Your task to perform on an android device: star an email in the gmail app Image 0: 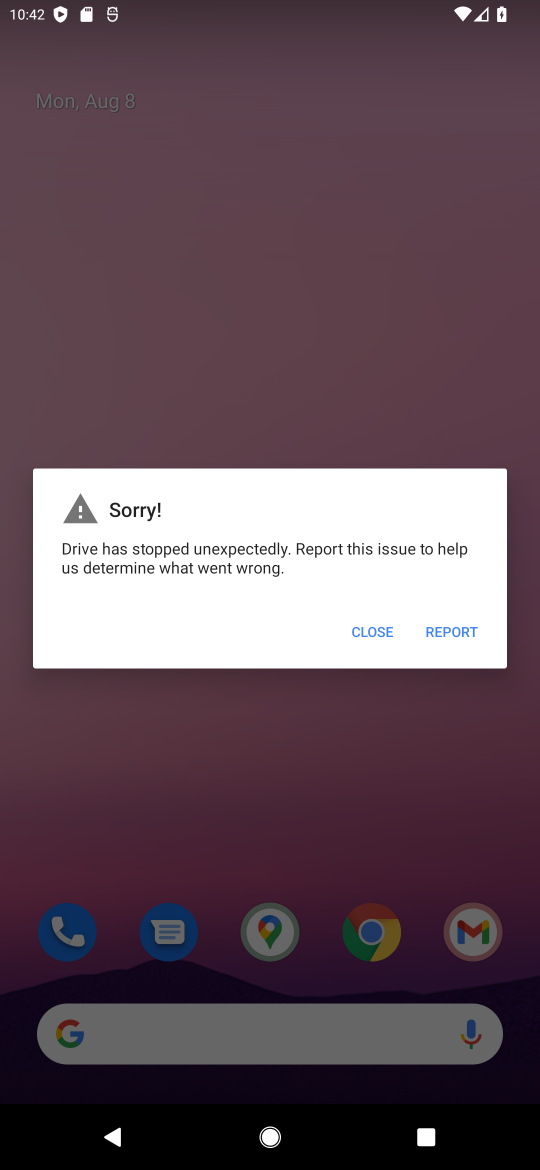
Step 0: click (379, 632)
Your task to perform on an android device: star an email in the gmail app Image 1: 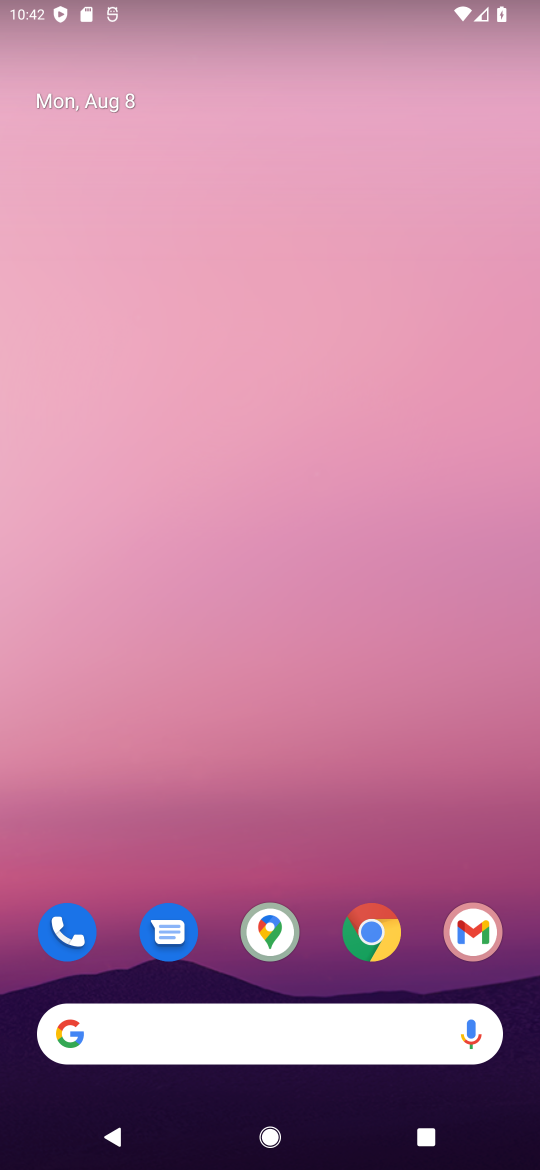
Step 1: click (457, 945)
Your task to perform on an android device: star an email in the gmail app Image 2: 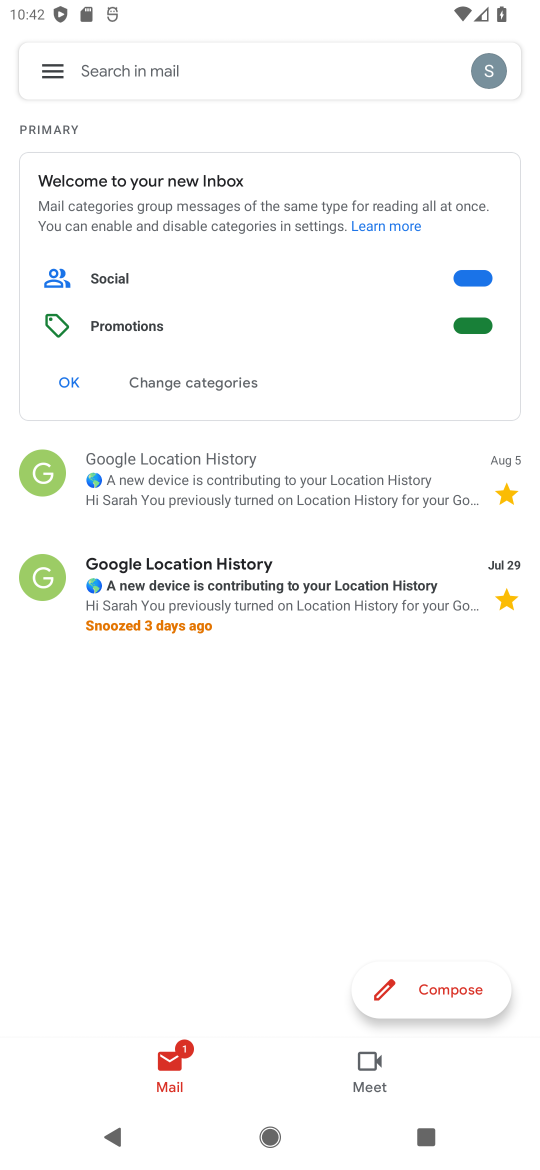
Step 2: task complete